Your task to perform on an android device: change notification settings in the gmail app Image 0: 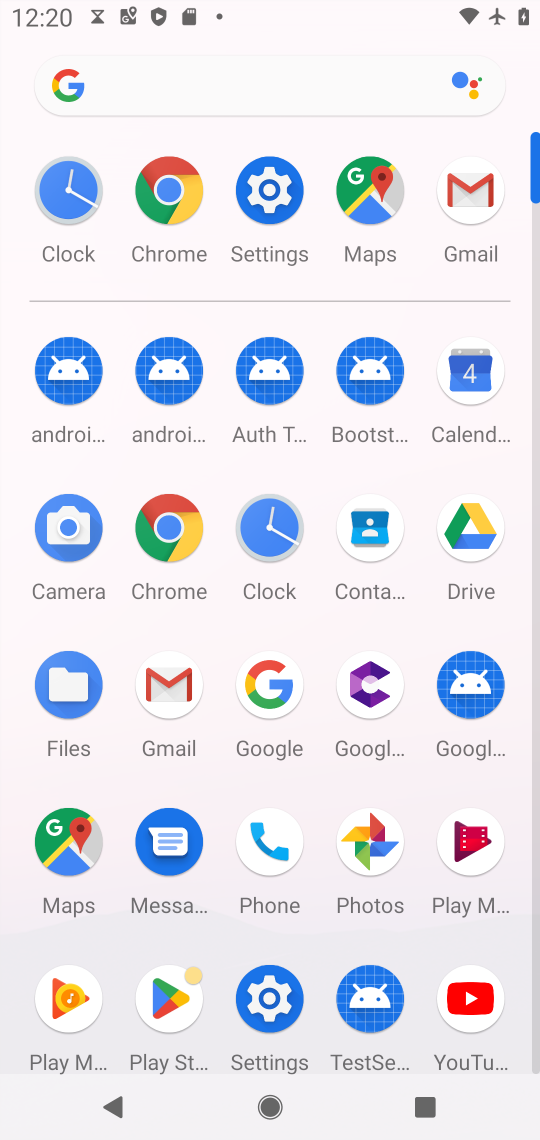
Step 0: press home button
Your task to perform on an android device: change notification settings in the gmail app Image 1: 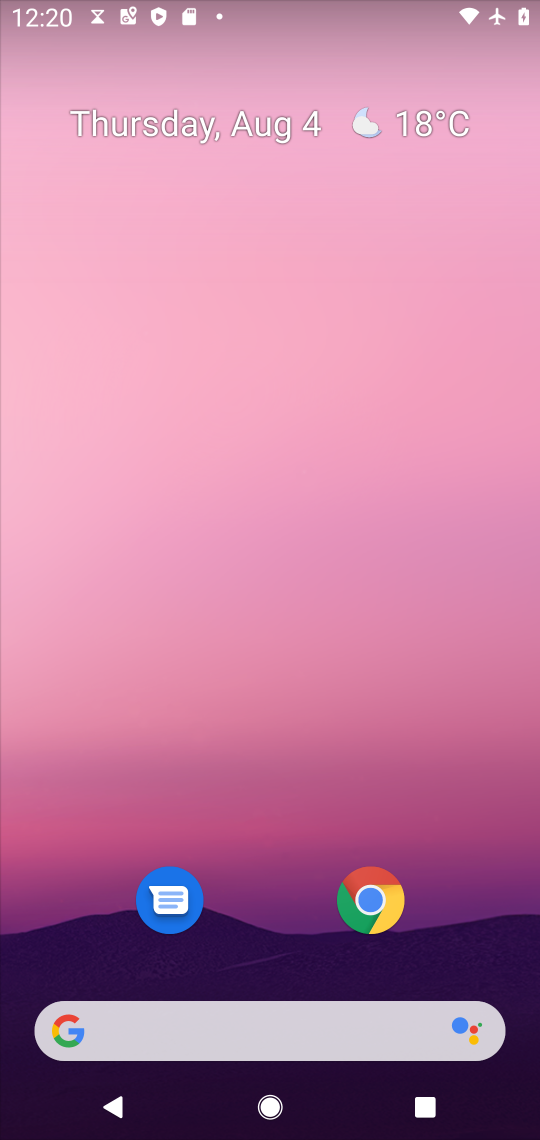
Step 1: drag from (297, 901) to (305, 0)
Your task to perform on an android device: change notification settings in the gmail app Image 2: 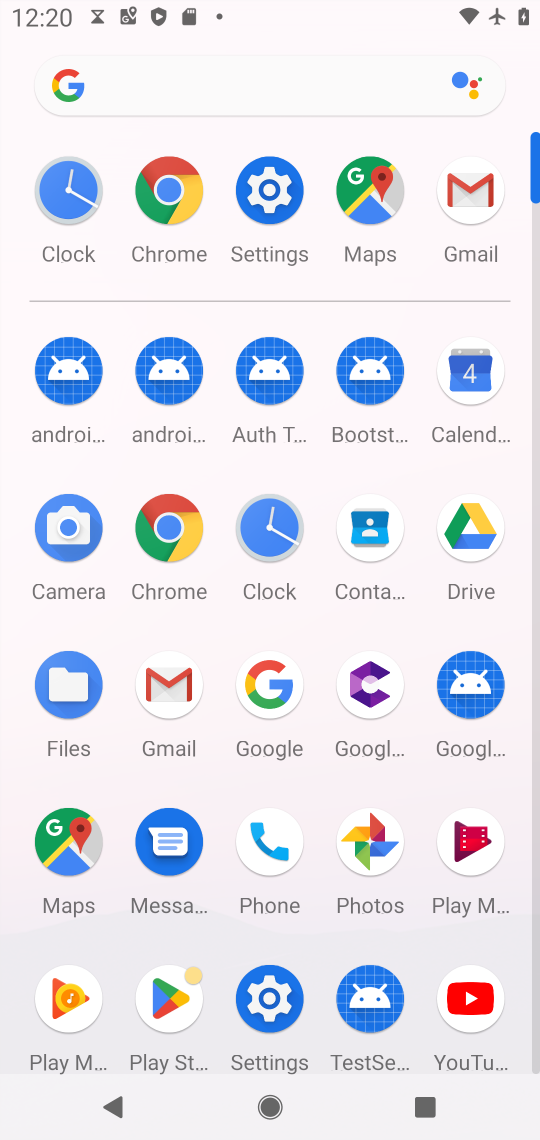
Step 2: click (485, 194)
Your task to perform on an android device: change notification settings in the gmail app Image 3: 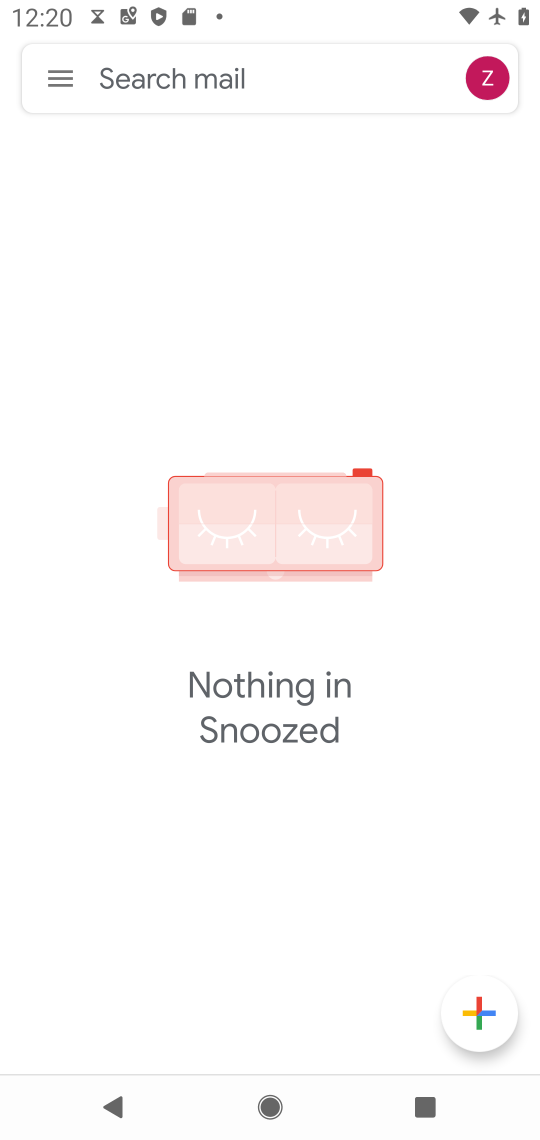
Step 3: click (55, 79)
Your task to perform on an android device: change notification settings in the gmail app Image 4: 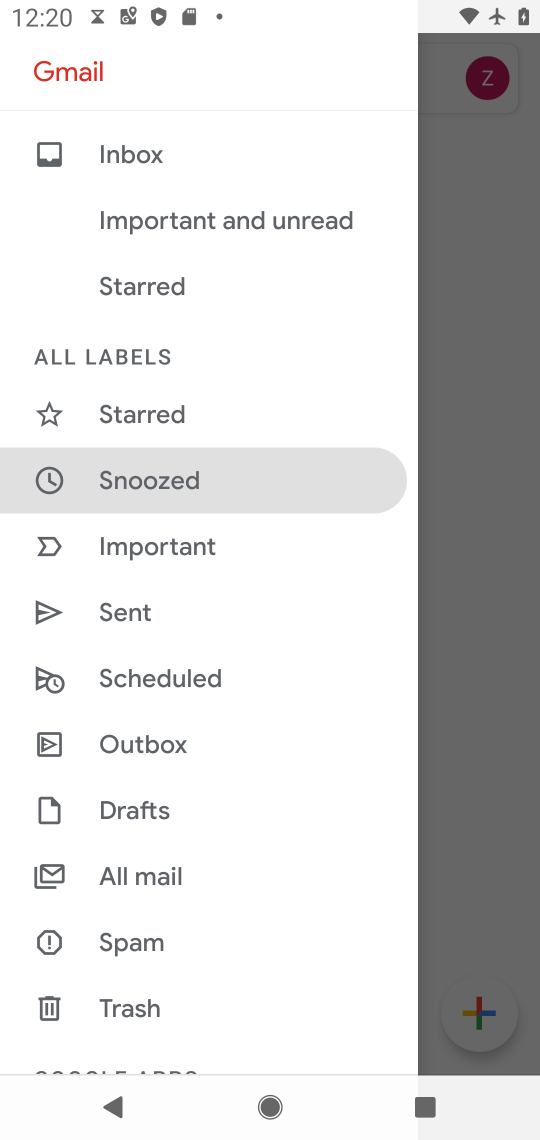
Step 4: drag from (198, 960) to (156, 262)
Your task to perform on an android device: change notification settings in the gmail app Image 5: 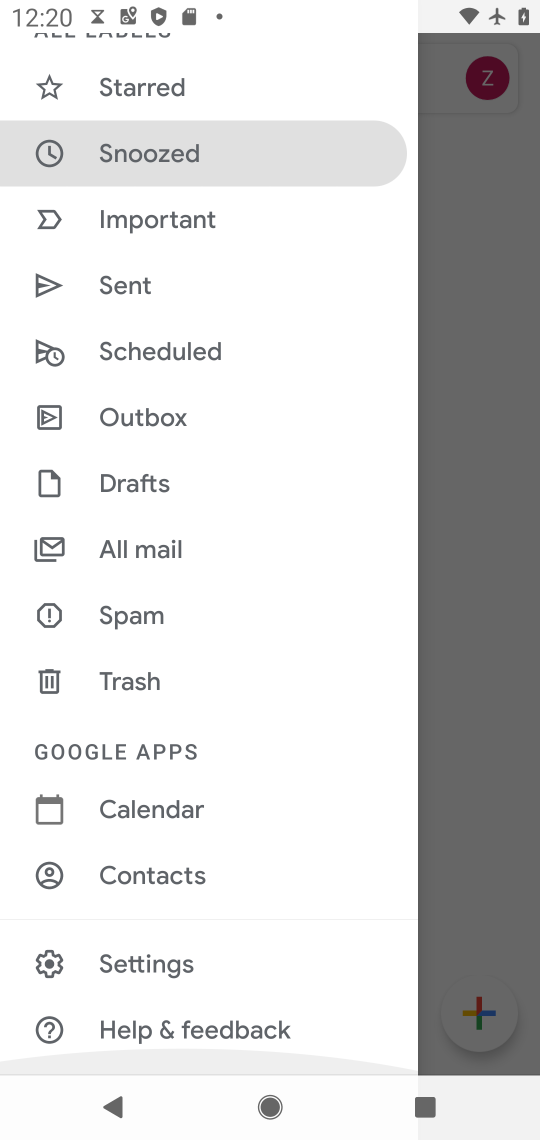
Step 5: click (141, 961)
Your task to perform on an android device: change notification settings in the gmail app Image 6: 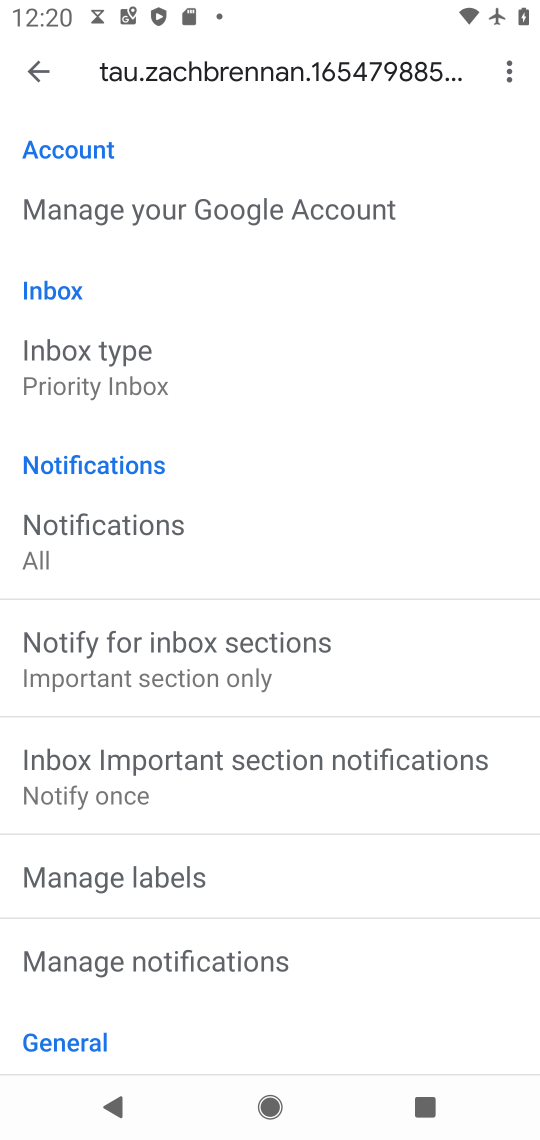
Step 6: click (167, 963)
Your task to perform on an android device: change notification settings in the gmail app Image 7: 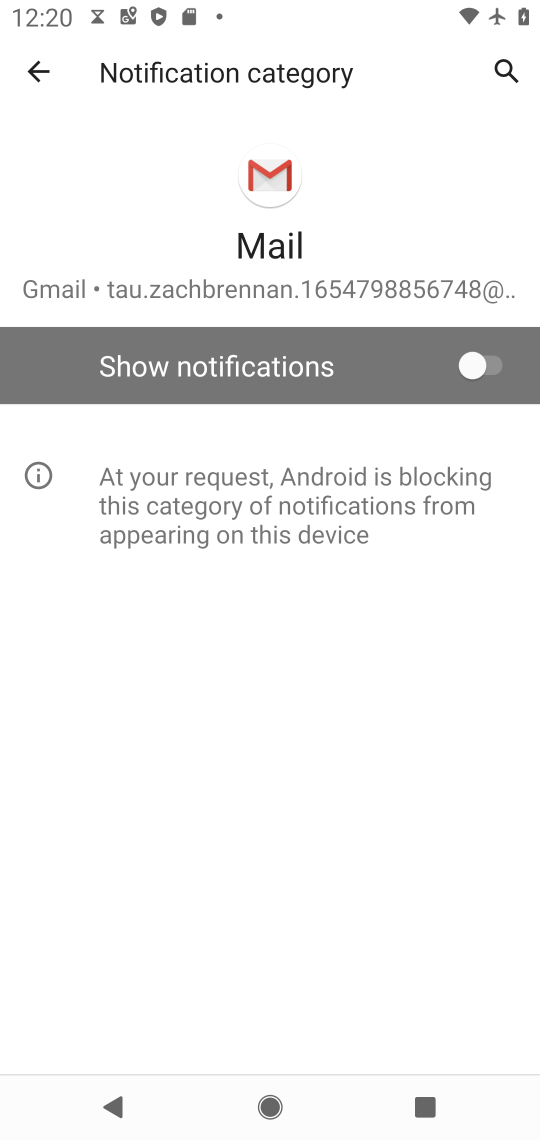
Step 7: click (468, 361)
Your task to perform on an android device: change notification settings in the gmail app Image 8: 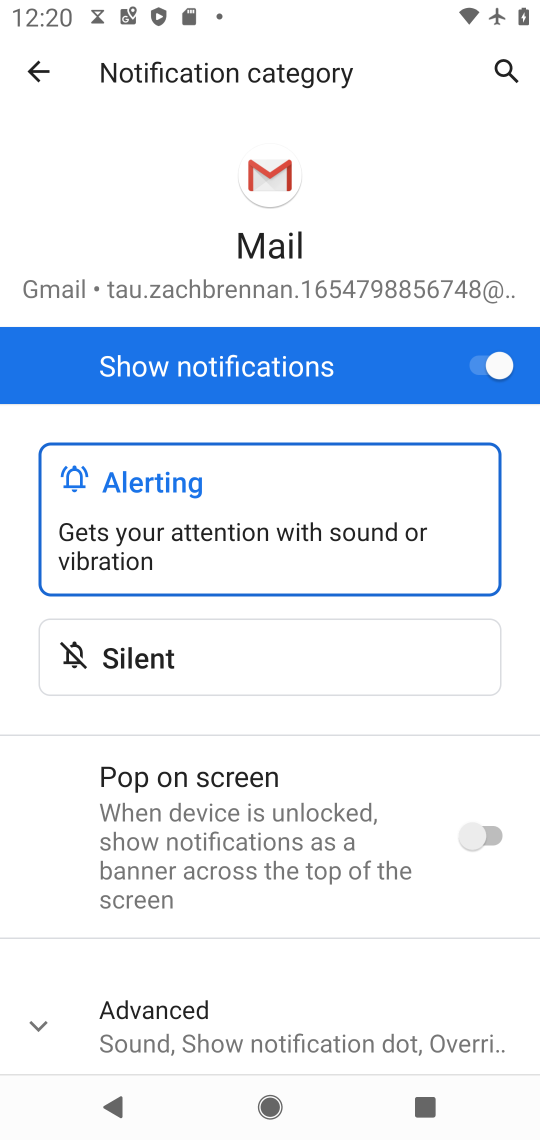
Step 8: task complete